Your task to perform on an android device: Open internet settings Image 0: 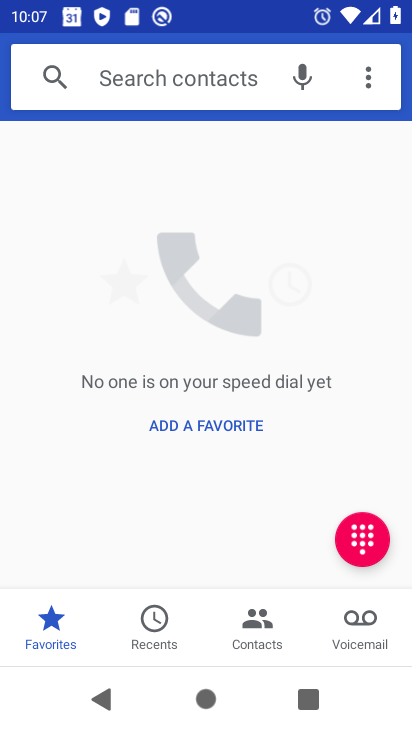
Step 0: drag from (200, 5) to (250, 535)
Your task to perform on an android device: Open internet settings Image 1: 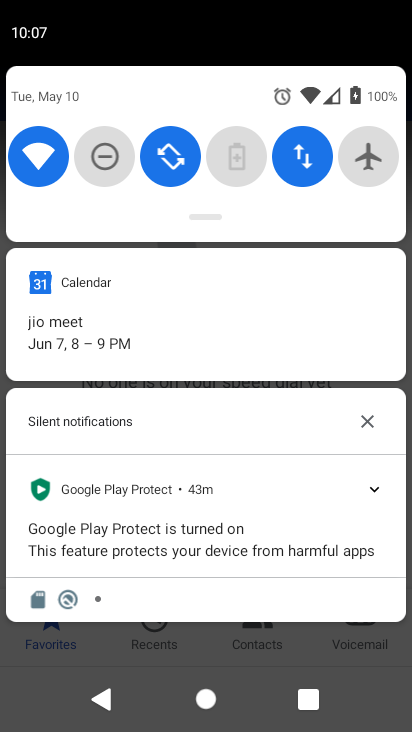
Step 1: click (316, 147)
Your task to perform on an android device: Open internet settings Image 2: 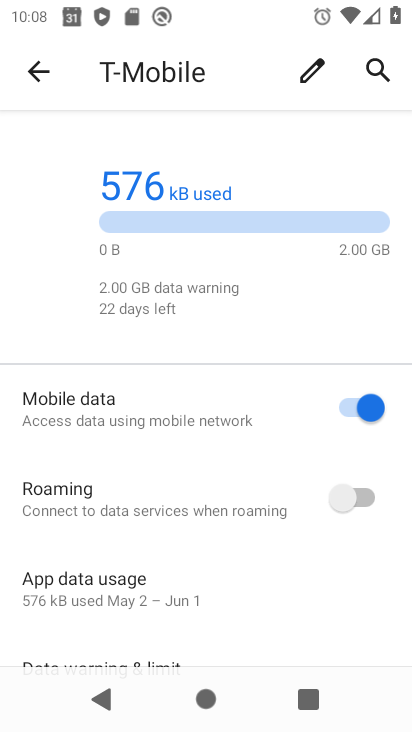
Step 2: task complete